Your task to perform on an android device: Go to Amazon Image 0: 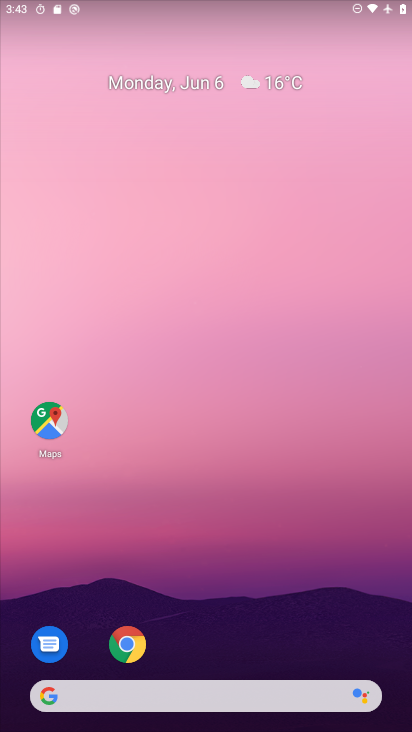
Step 0: click (129, 644)
Your task to perform on an android device: Go to Amazon Image 1: 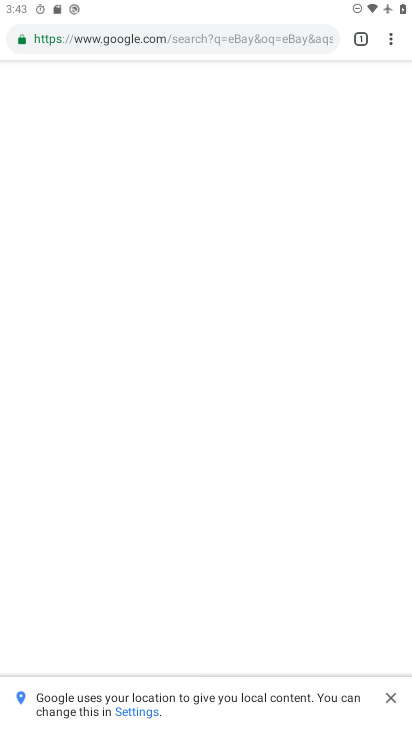
Step 1: click (243, 42)
Your task to perform on an android device: Go to Amazon Image 2: 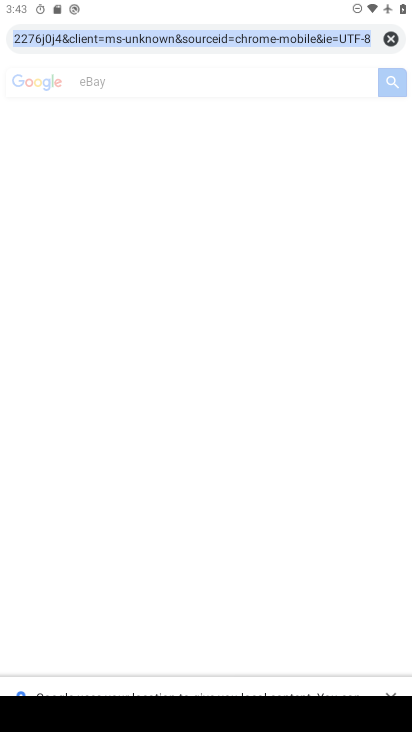
Step 2: click (385, 43)
Your task to perform on an android device: Go to Amazon Image 3: 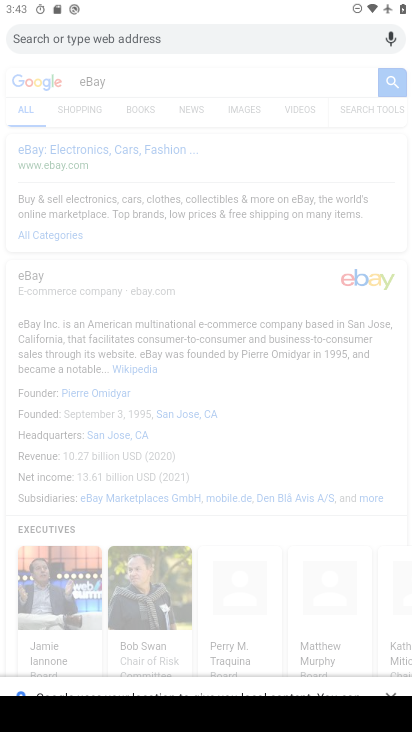
Step 3: type "Amazon"
Your task to perform on an android device: Go to Amazon Image 4: 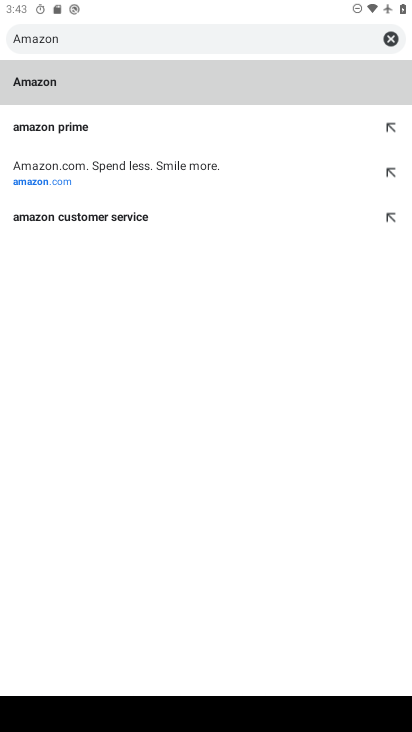
Step 4: click (89, 156)
Your task to perform on an android device: Go to Amazon Image 5: 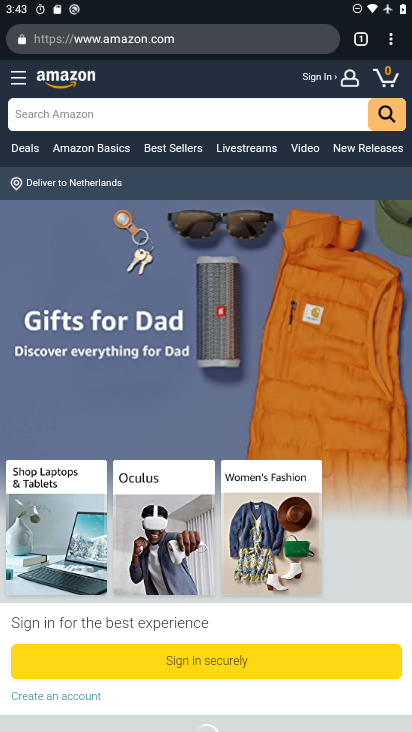
Step 5: task complete